Your task to perform on an android device: find snoozed emails in the gmail app Image 0: 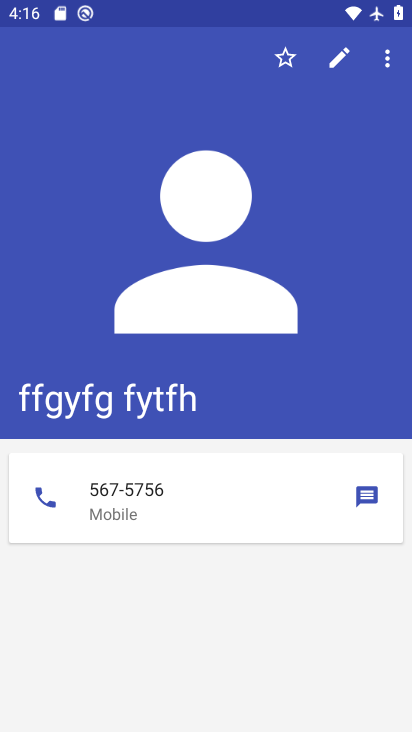
Step 0: press home button
Your task to perform on an android device: find snoozed emails in the gmail app Image 1: 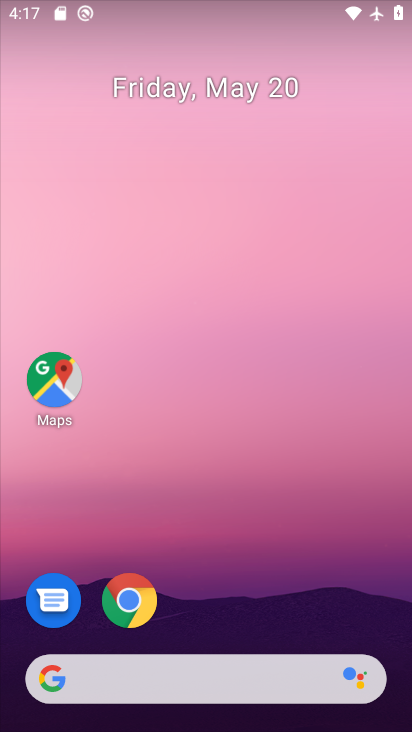
Step 1: drag from (270, 348) to (222, 62)
Your task to perform on an android device: find snoozed emails in the gmail app Image 2: 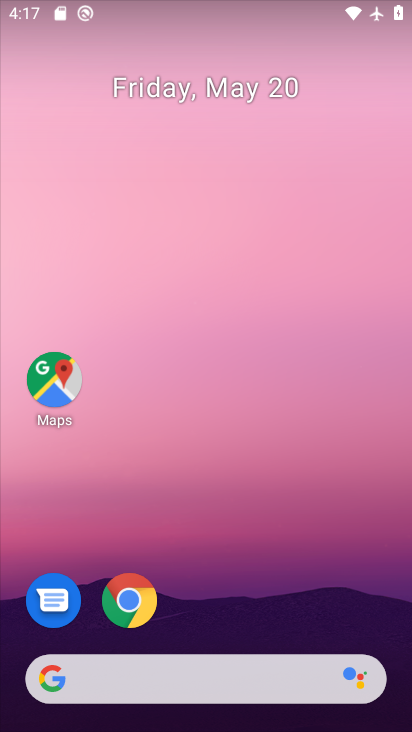
Step 2: drag from (249, 570) to (239, 15)
Your task to perform on an android device: find snoozed emails in the gmail app Image 3: 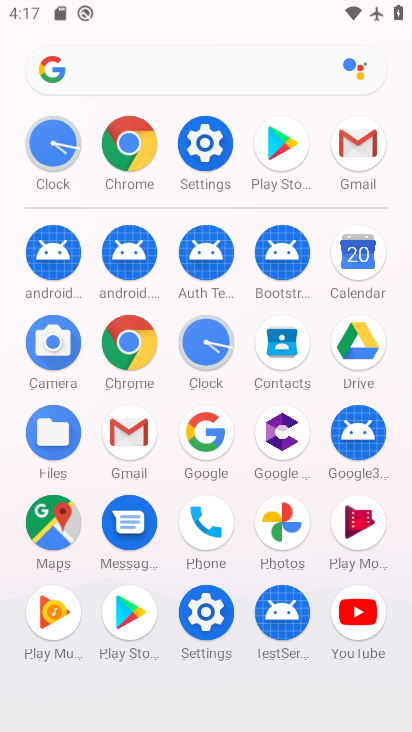
Step 3: click (119, 436)
Your task to perform on an android device: find snoozed emails in the gmail app Image 4: 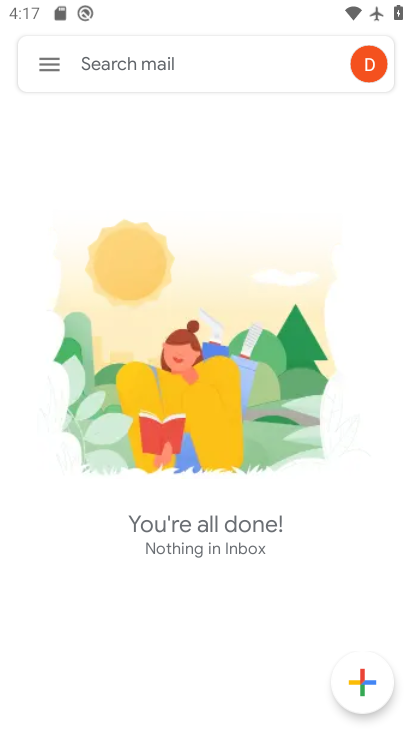
Step 4: click (48, 48)
Your task to perform on an android device: find snoozed emails in the gmail app Image 5: 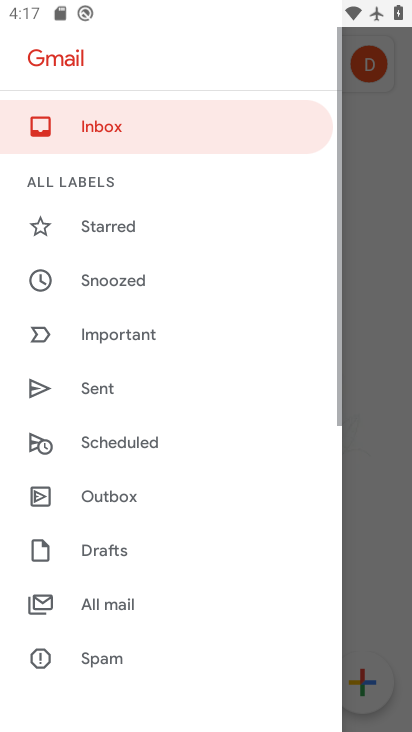
Step 5: click (179, 282)
Your task to perform on an android device: find snoozed emails in the gmail app Image 6: 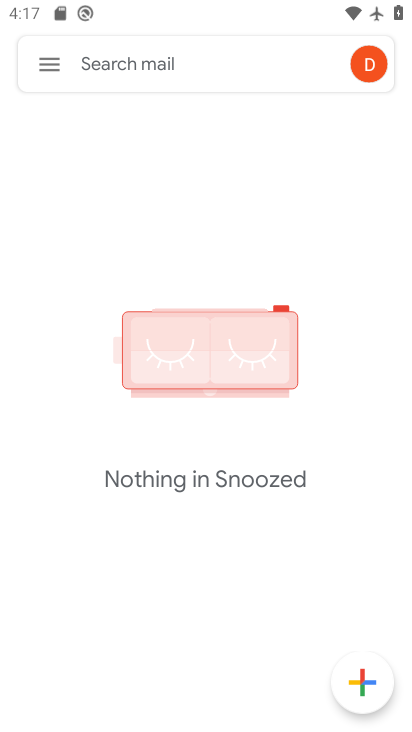
Step 6: task complete